Your task to perform on an android device: Clear the cart on costco. Search for "bose soundlink mini" on costco, select the first entry, add it to the cart, then select checkout. Image 0: 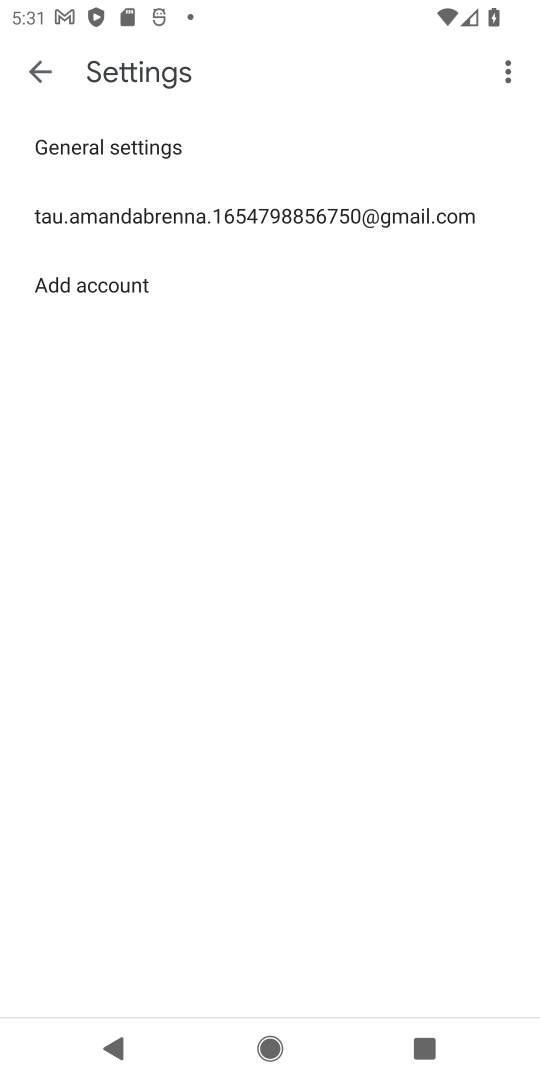
Step 0: press home button
Your task to perform on an android device: Clear the cart on costco. Search for "bose soundlink mini" on costco, select the first entry, add it to the cart, then select checkout. Image 1: 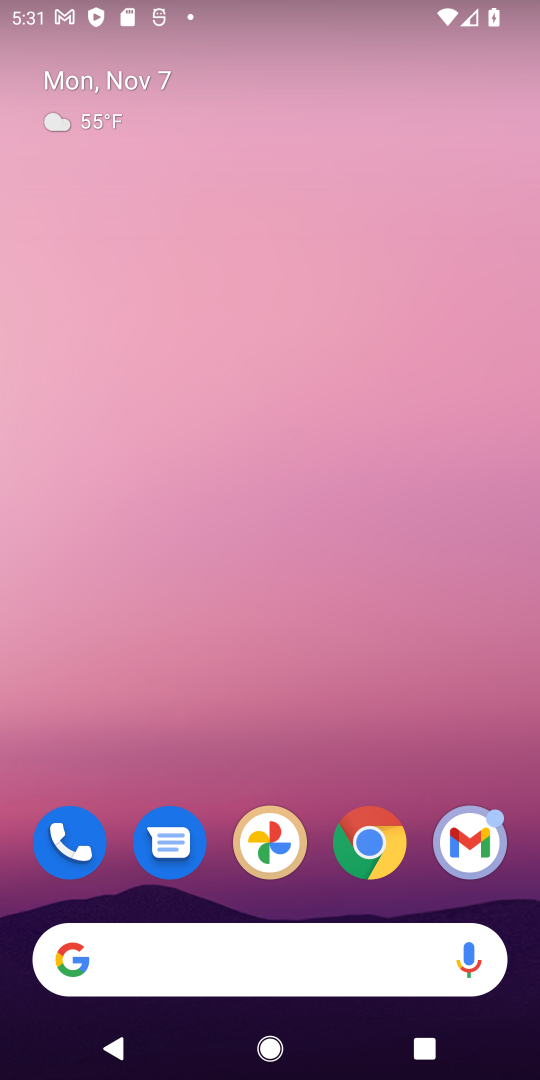
Step 1: click (366, 839)
Your task to perform on an android device: Clear the cart on costco. Search for "bose soundlink mini" on costco, select the first entry, add it to the cart, then select checkout. Image 2: 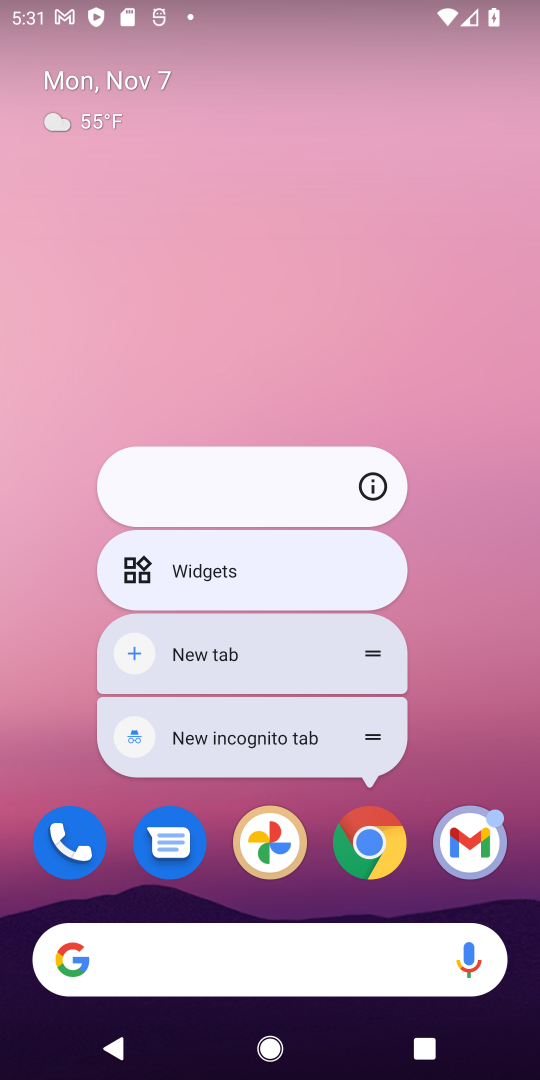
Step 2: click (366, 842)
Your task to perform on an android device: Clear the cart on costco. Search for "bose soundlink mini" on costco, select the first entry, add it to the cart, then select checkout. Image 3: 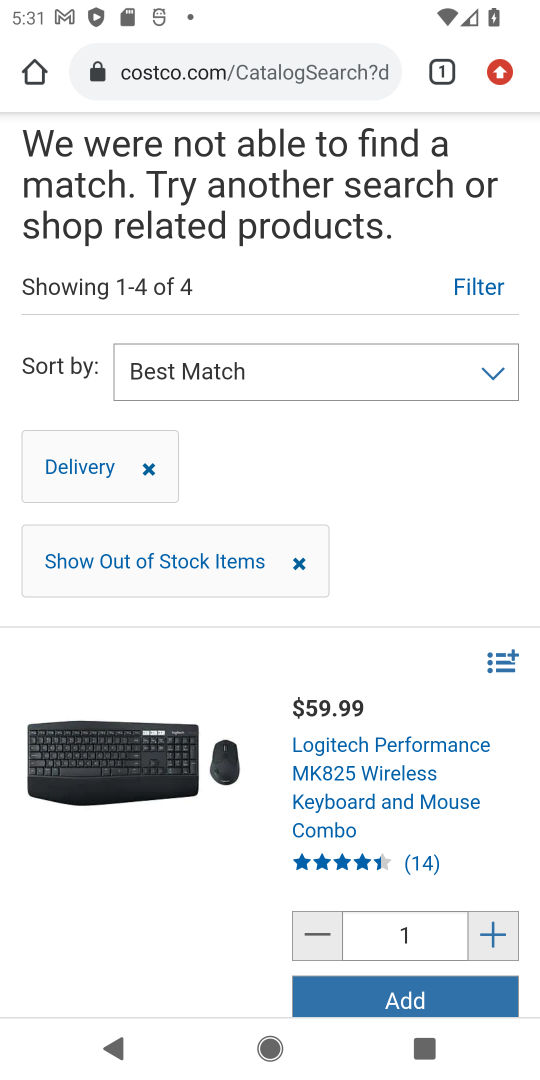
Step 3: drag from (455, 183) to (321, 868)
Your task to perform on an android device: Clear the cart on costco. Search for "bose soundlink mini" on costco, select the first entry, add it to the cart, then select checkout. Image 4: 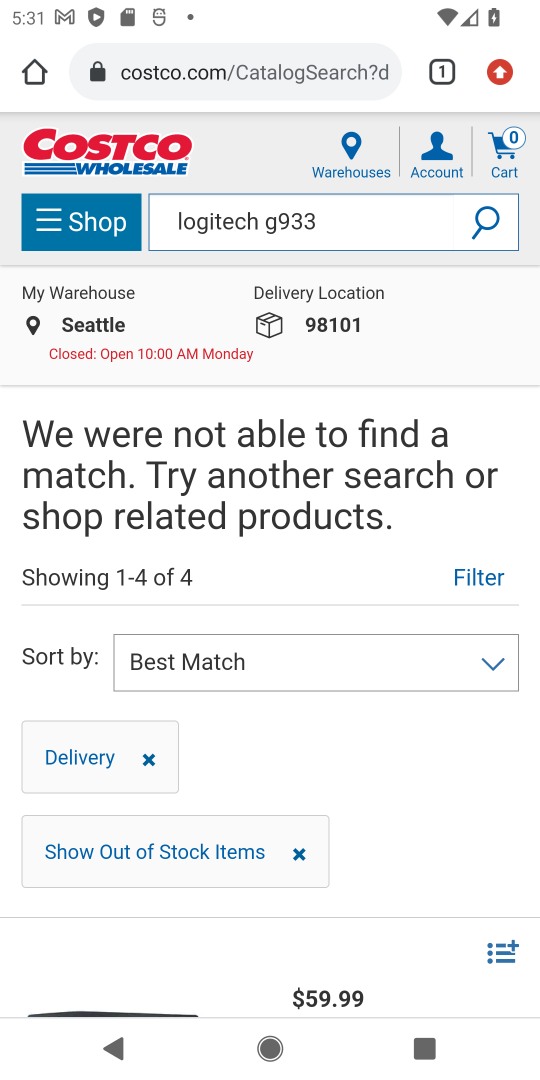
Step 4: click (482, 210)
Your task to perform on an android device: Clear the cart on costco. Search for "bose soundlink mini" on costco, select the first entry, add it to the cart, then select checkout. Image 5: 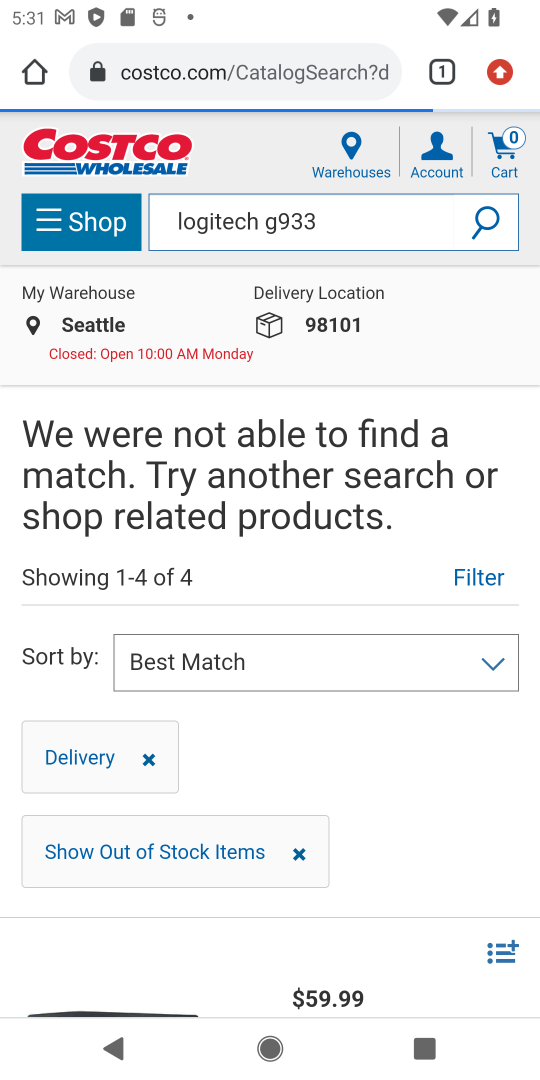
Step 5: click (371, 217)
Your task to perform on an android device: Clear the cart on costco. Search for "bose soundlink mini" on costco, select the first entry, add it to the cart, then select checkout. Image 6: 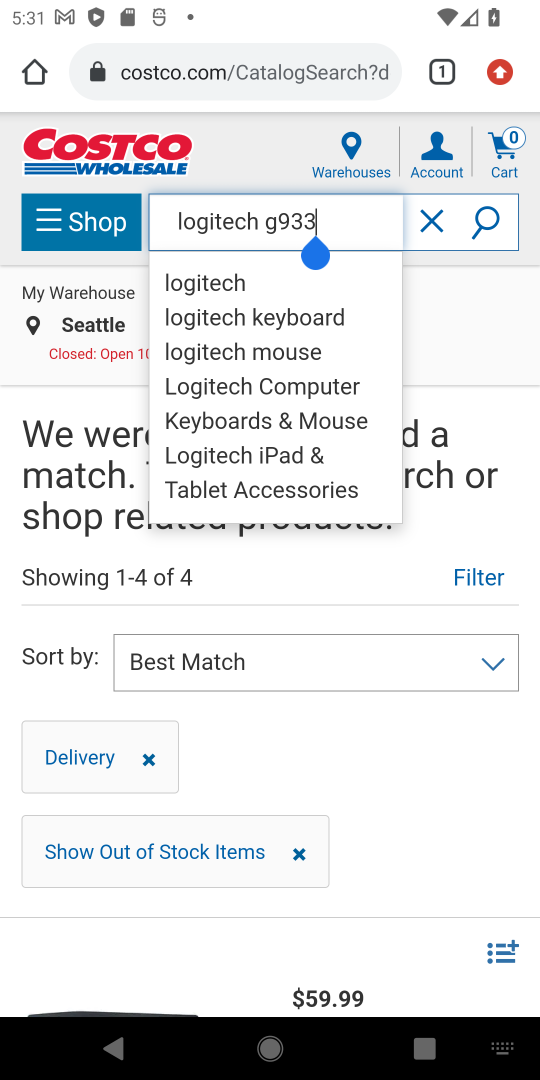
Step 6: click (436, 217)
Your task to perform on an android device: Clear the cart on costco. Search for "bose soundlink mini" on costco, select the first entry, add it to the cart, then select checkout. Image 7: 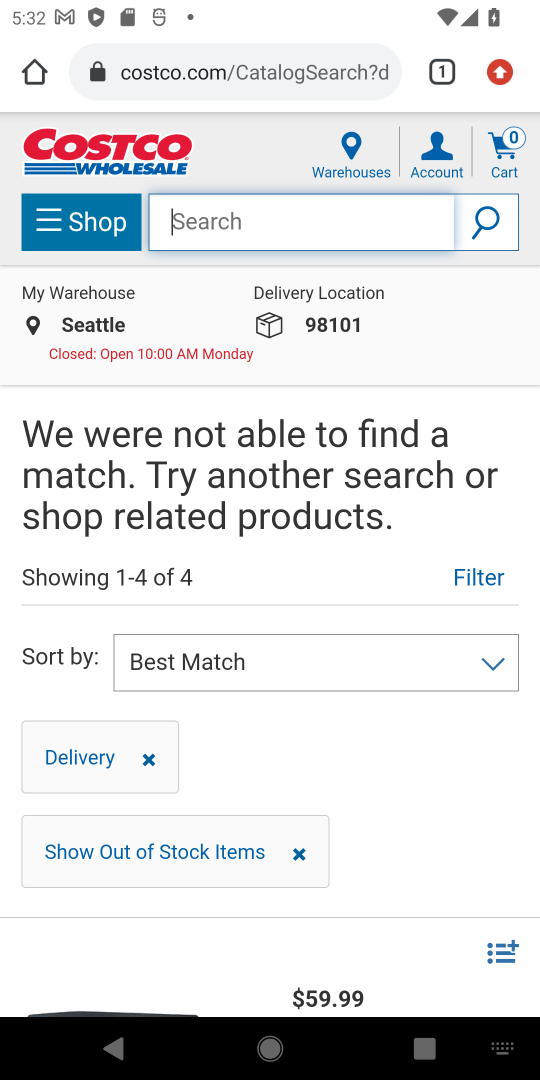
Step 7: type "bose soundlink mini"
Your task to perform on an android device: Clear the cart on costco. Search for "bose soundlink mini" on costco, select the first entry, add it to the cart, then select checkout. Image 8: 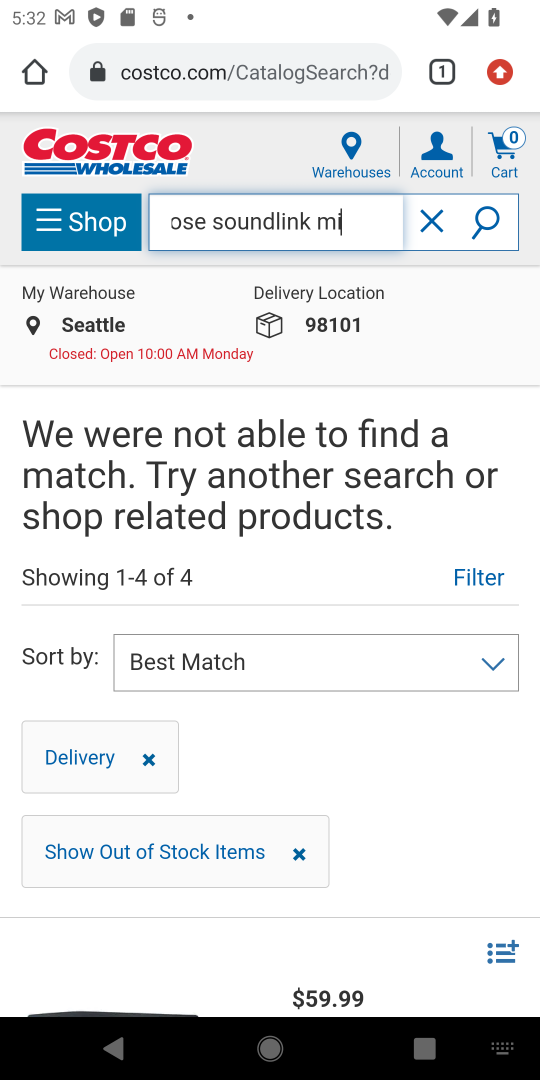
Step 8: press enter
Your task to perform on an android device: Clear the cart on costco. Search for "bose soundlink mini" on costco, select the first entry, add it to the cart, then select checkout. Image 9: 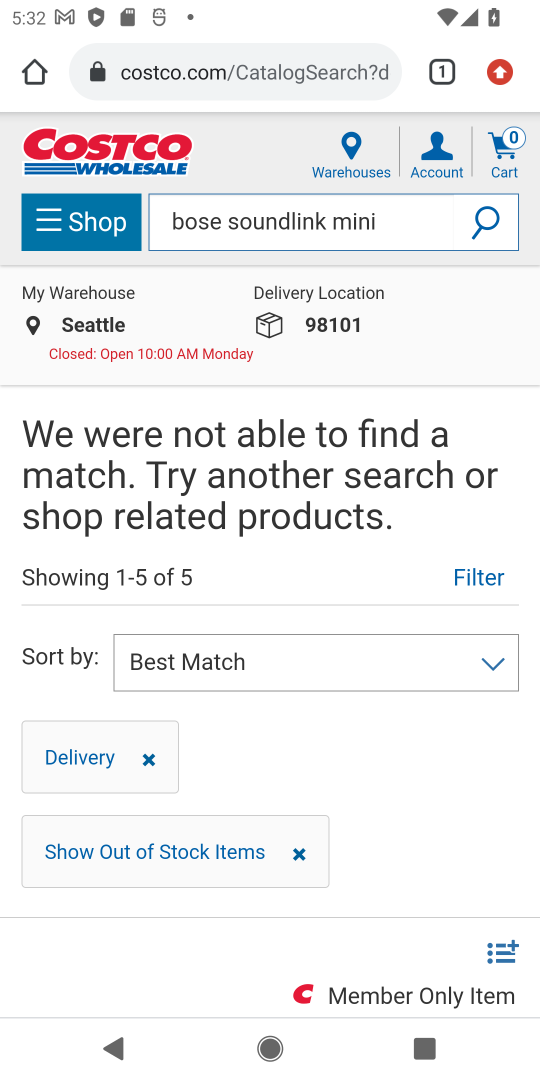
Step 9: task complete